Your task to perform on an android device: Go to Amazon Image 0: 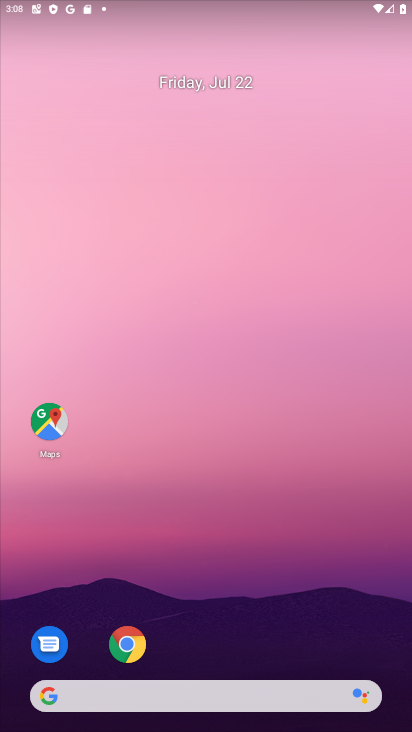
Step 0: click (125, 649)
Your task to perform on an android device: Go to Amazon Image 1: 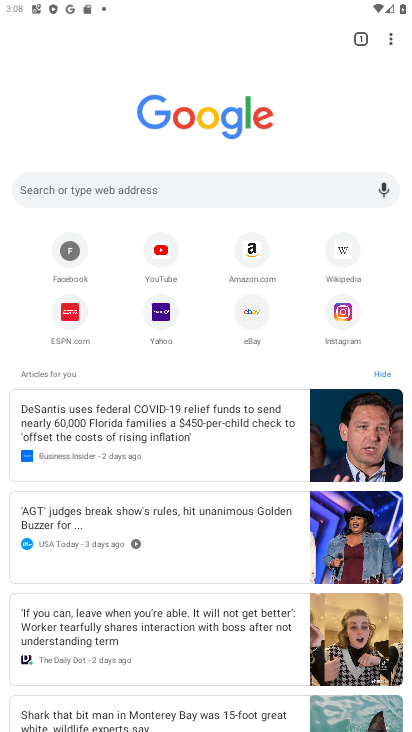
Step 1: click (246, 243)
Your task to perform on an android device: Go to Amazon Image 2: 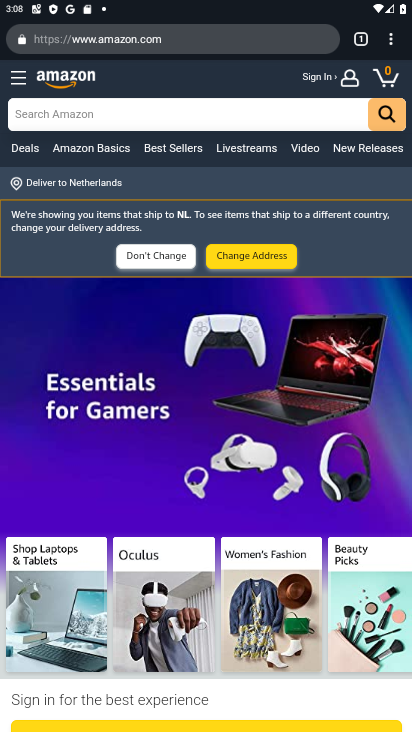
Step 2: task complete